Your task to perform on an android device: Empty the shopping cart on target.com. Search for panasonic triple a on target.com, select the first entry, add it to the cart, then select checkout. Image 0: 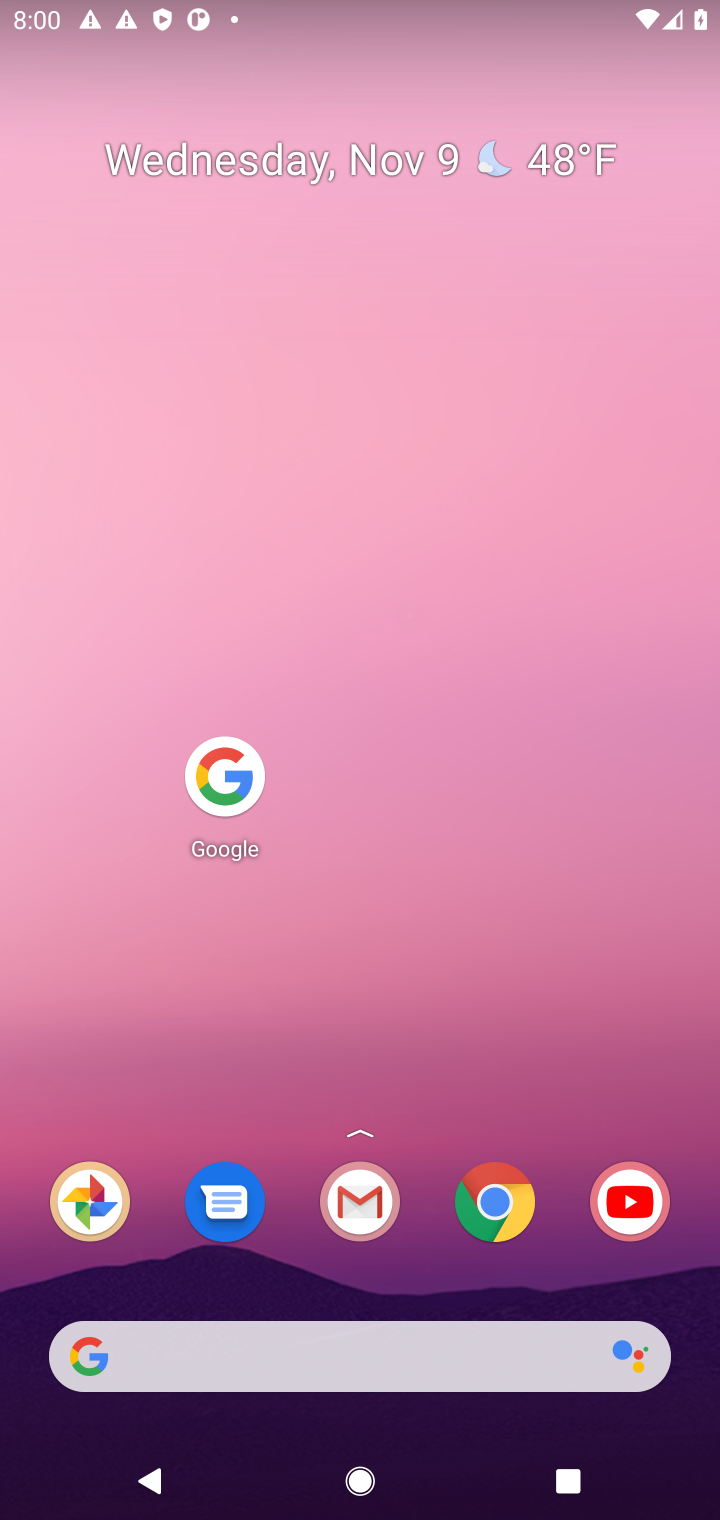
Step 0: click (207, 798)
Your task to perform on an android device: Empty the shopping cart on target.com. Search for panasonic triple a on target.com, select the first entry, add it to the cart, then select checkout. Image 1: 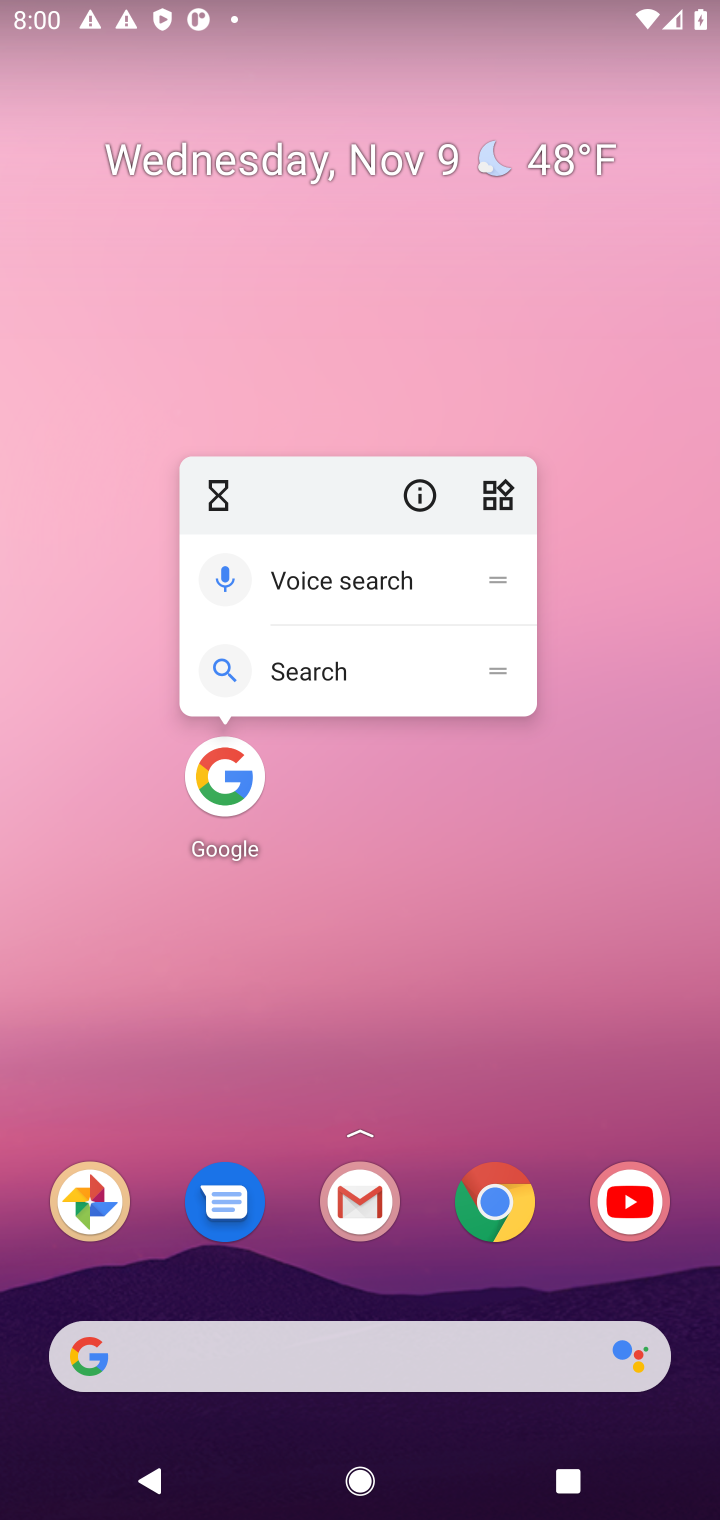
Step 1: click (221, 788)
Your task to perform on an android device: Empty the shopping cart on target.com. Search for panasonic triple a on target.com, select the first entry, add it to the cart, then select checkout. Image 2: 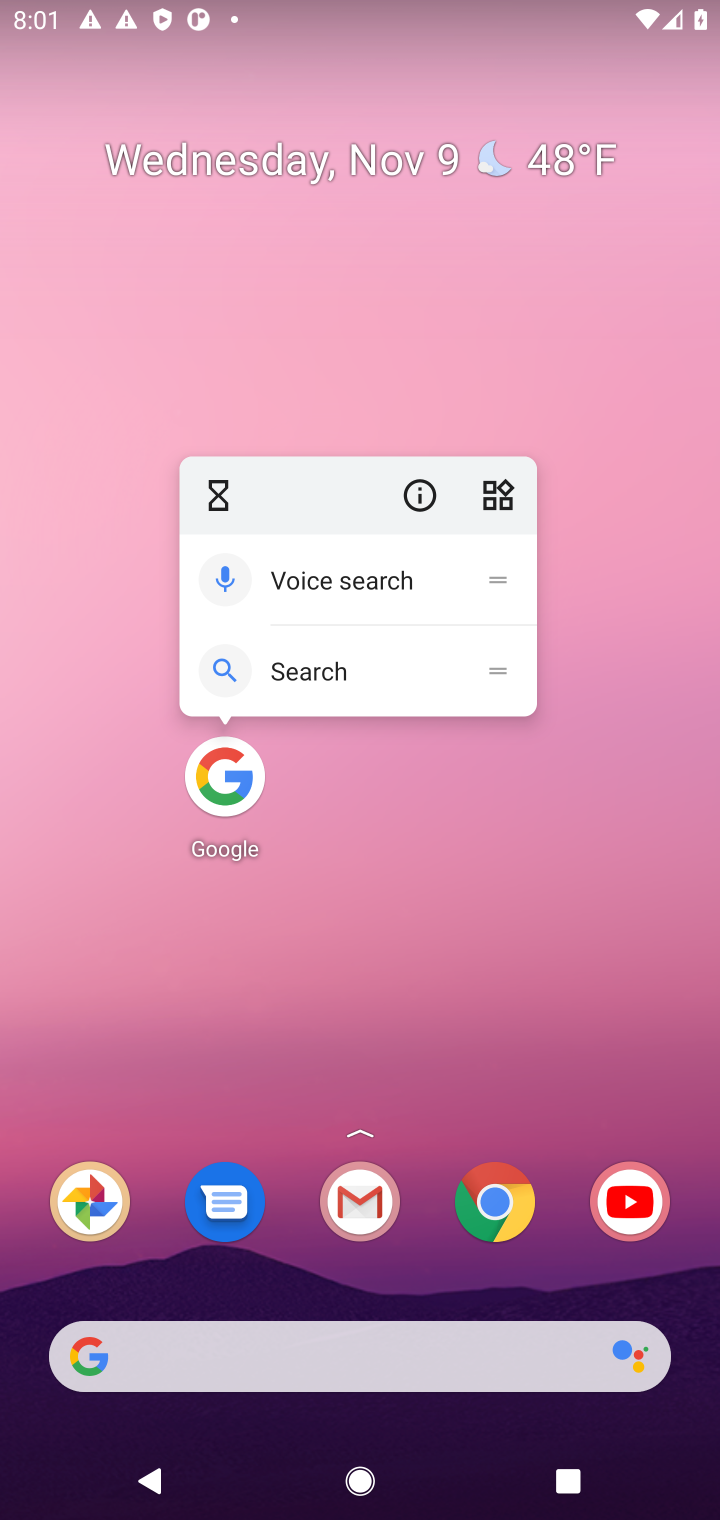
Step 2: click (220, 773)
Your task to perform on an android device: Empty the shopping cart on target.com. Search for panasonic triple a on target.com, select the first entry, add it to the cart, then select checkout. Image 3: 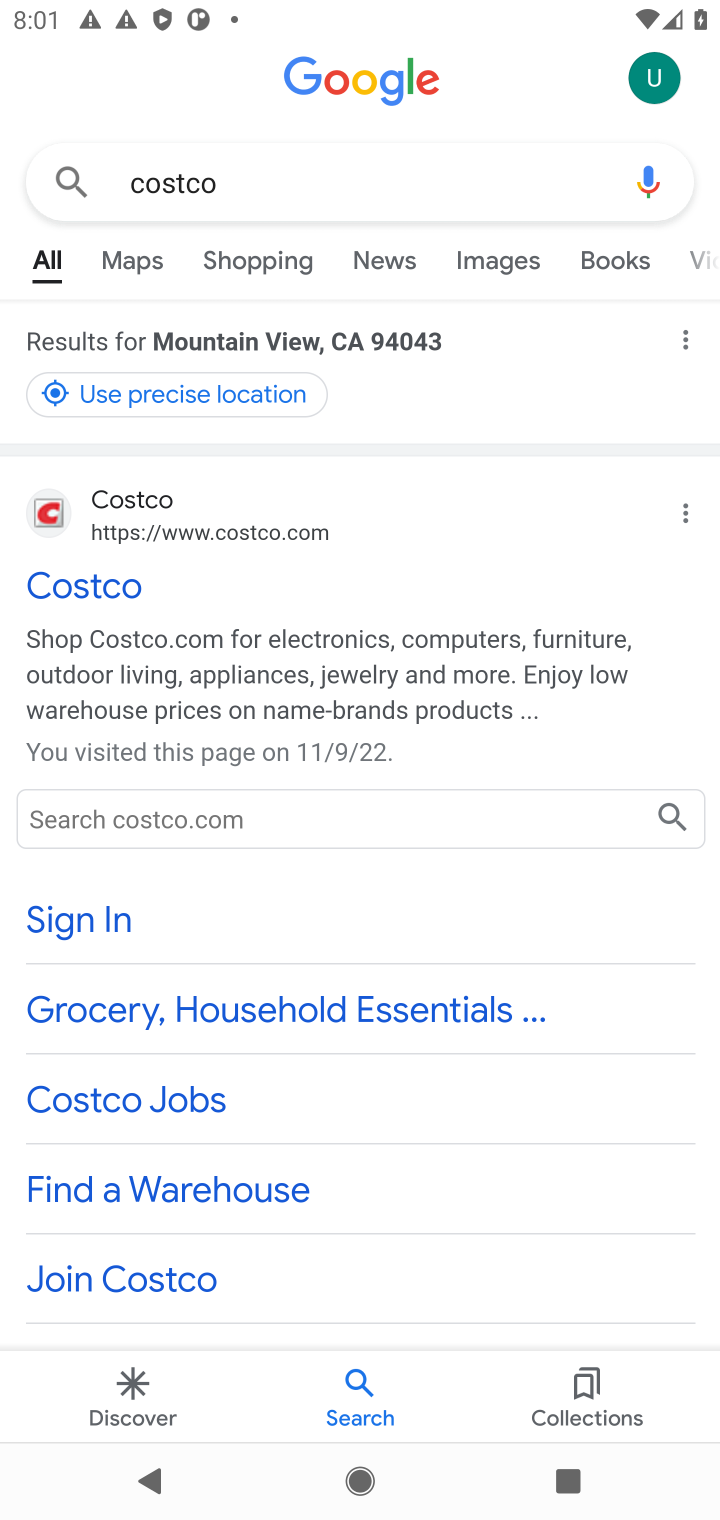
Step 3: click (343, 174)
Your task to perform on an android device: Empty the shopping cart on target.com. Search for panasonic triple a on target.com, select the first entry, add it to the cart, then select checkout. Image 4: 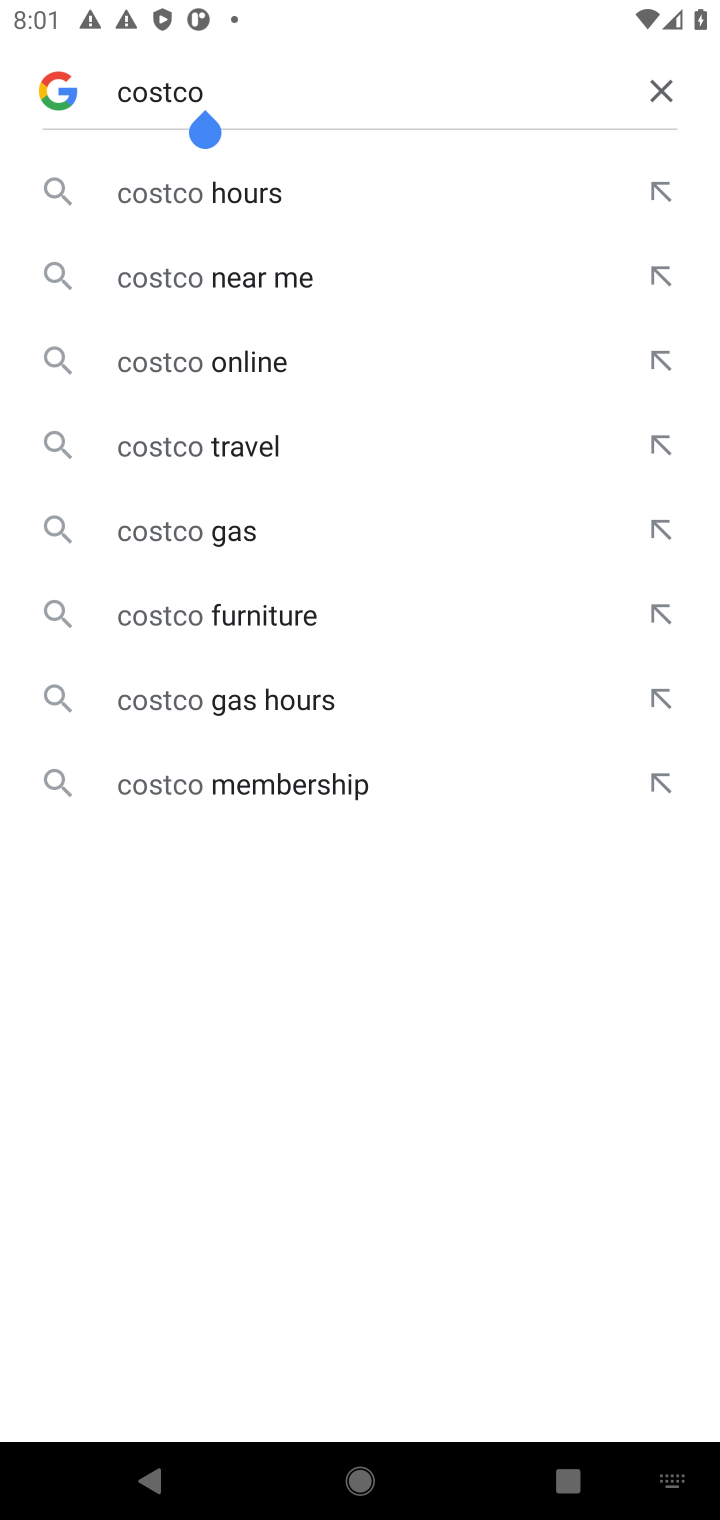
Step 4: click (657, 83)
Your task to perform on an android device: Empty the shopping cart on target.com. Search for panasonic triple a on target.com, select the first entry, add it to the cart, then select checkout. Image 5: 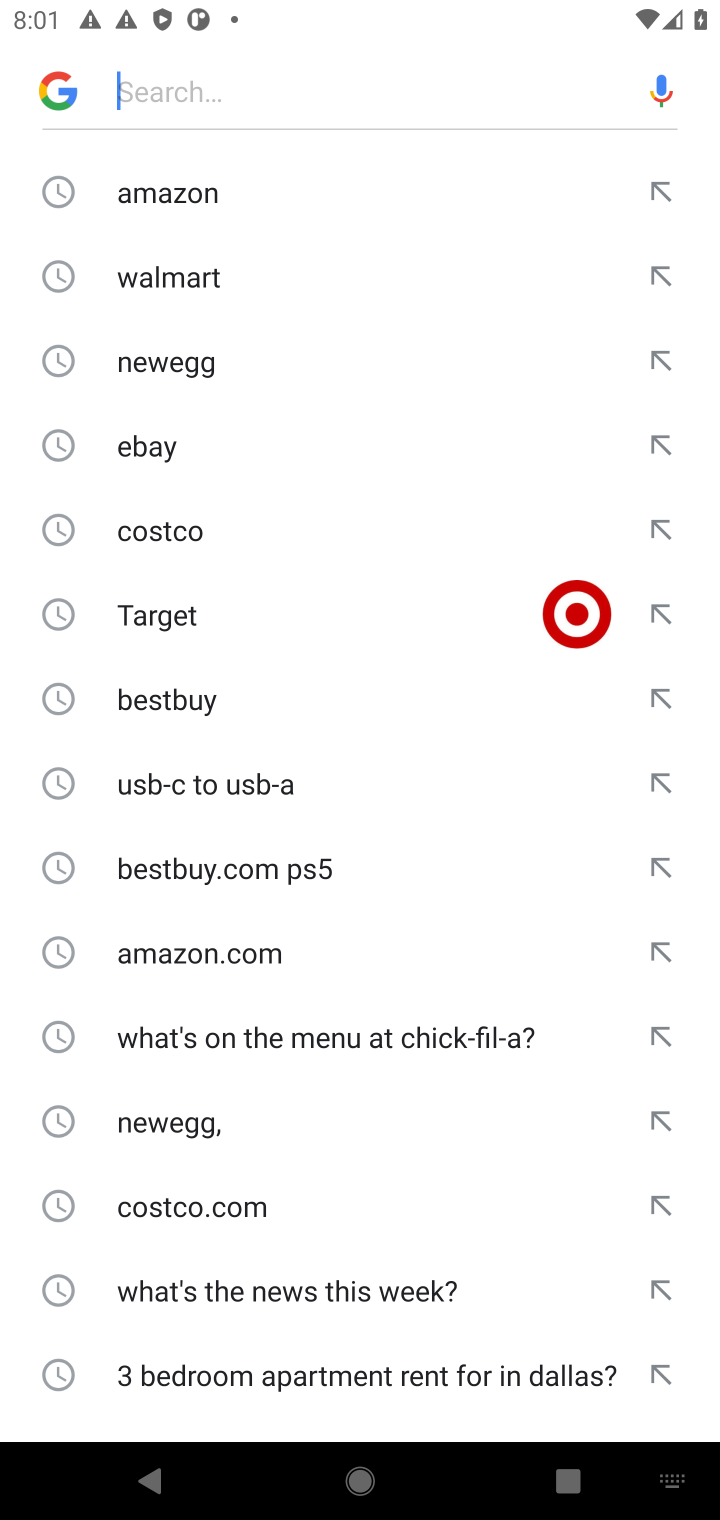
Step 5: click (141, 616)
Your task to perform on an android device: Empty the shopping cart on target.com. Search for panasonic triple a on target.com, select the first entry, add it to the cart, then select checkout. Image 6: 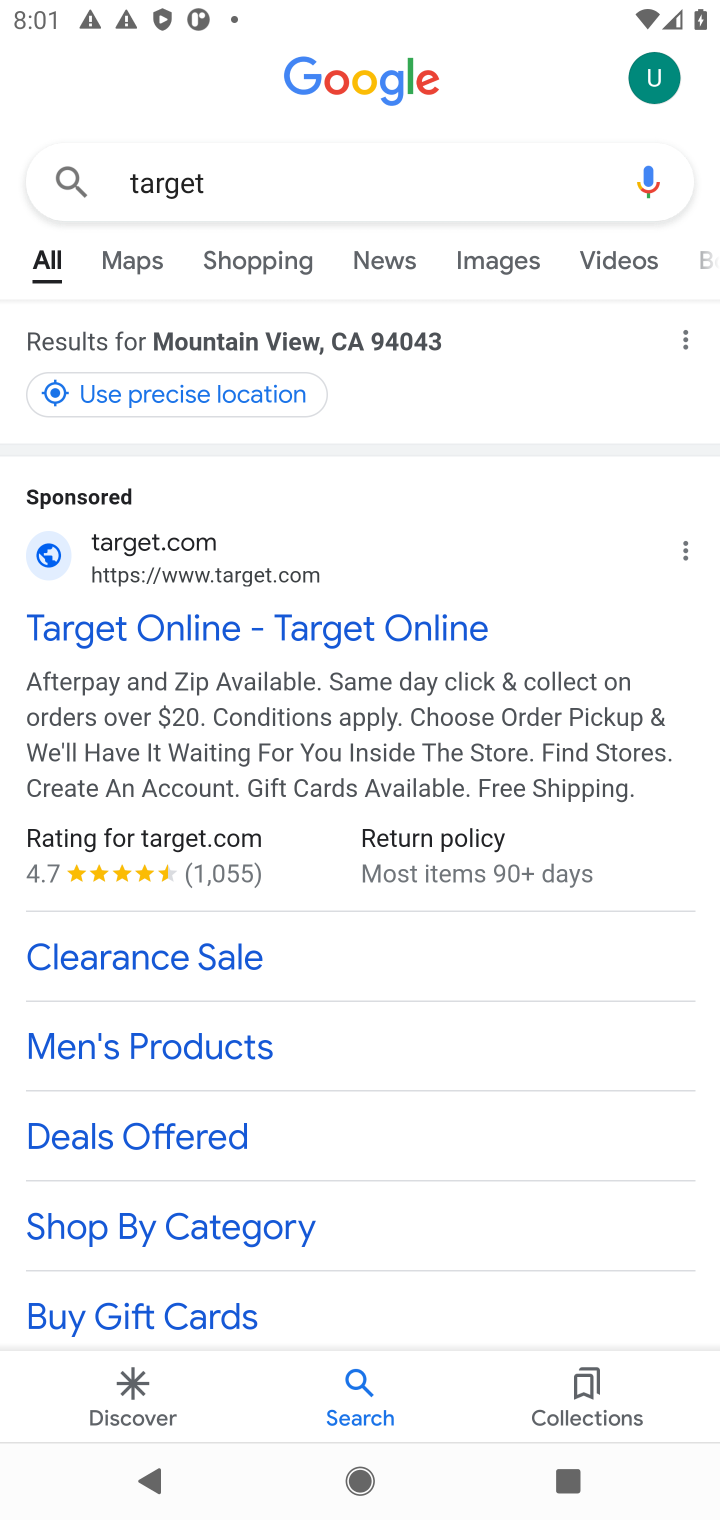
Step 6: click (313, 632)
Your task to perform on an android device: Empty the shopping cart on target.com. Search for panasonic triple a on target.com, select the first entry, add it to the cart, then select checkout. Image 7: 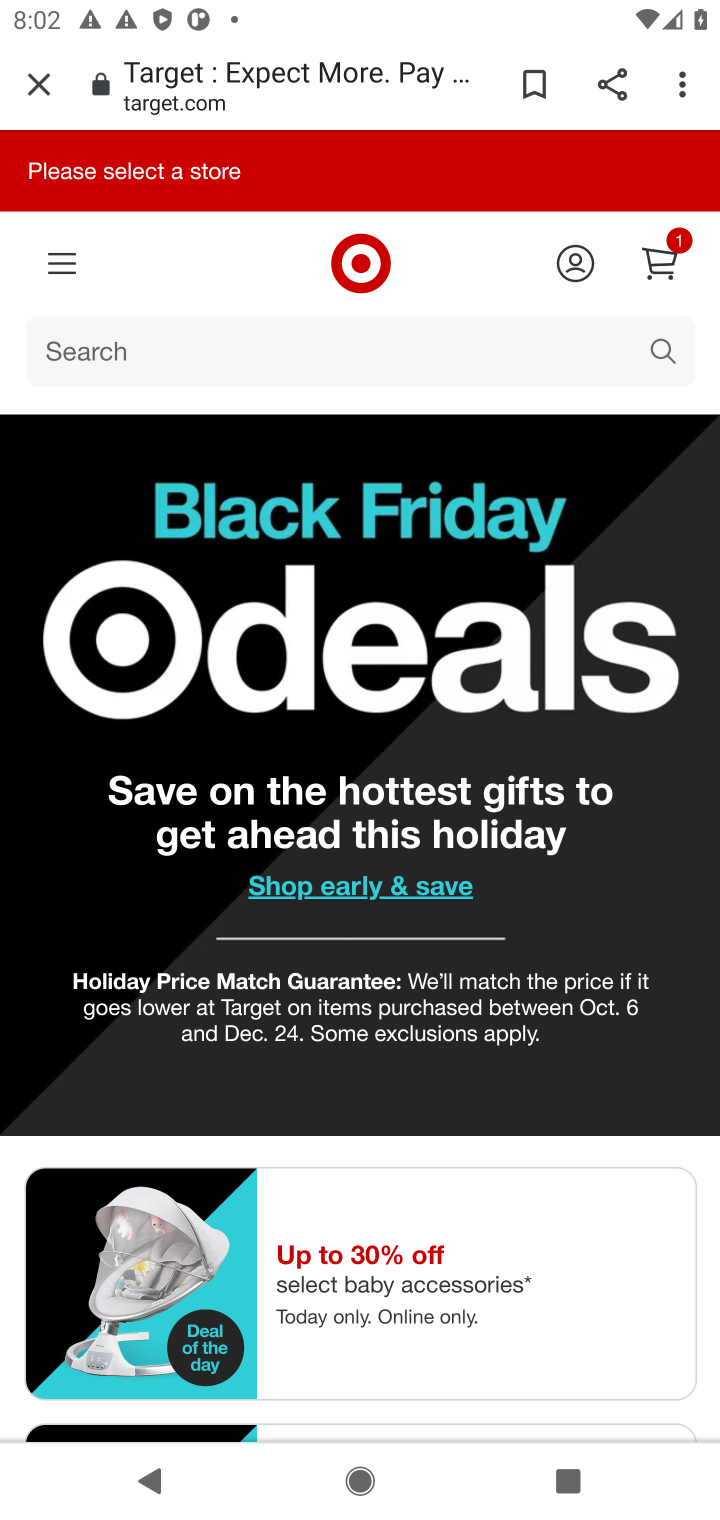
Step 7: click (113, 327)
Your task to perform on an android device: Empty the shopping cart on target.com. Search for panasonic triple a on target.com, select the first entry, add it to the cart, then select checkout. Image 8: 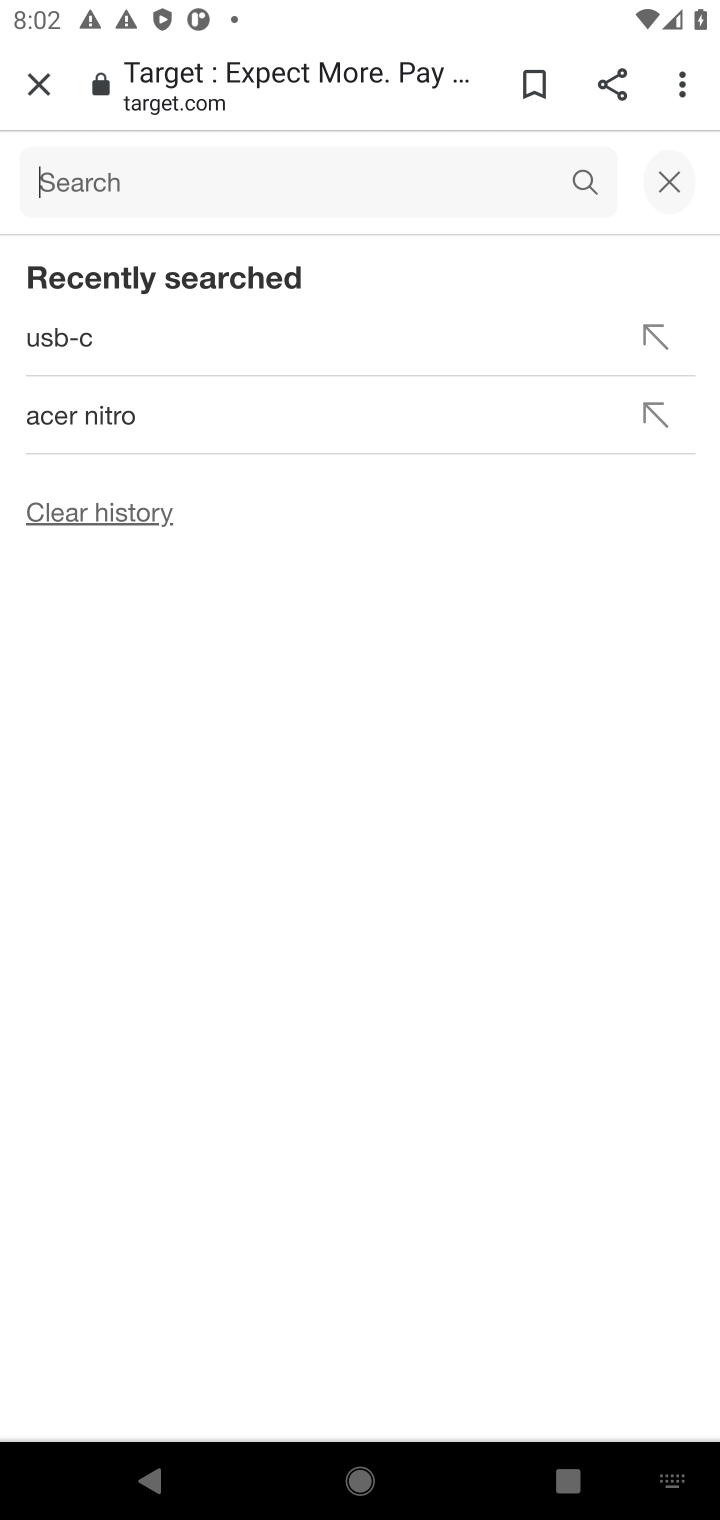
Step 8: type "panasonic triple a"
Your task to perform on an android device: Empty the shopping cart on target.com. Search for panasonic triple a on target.com, select the first entry, add it to the cart, then select checkout. Image 9: 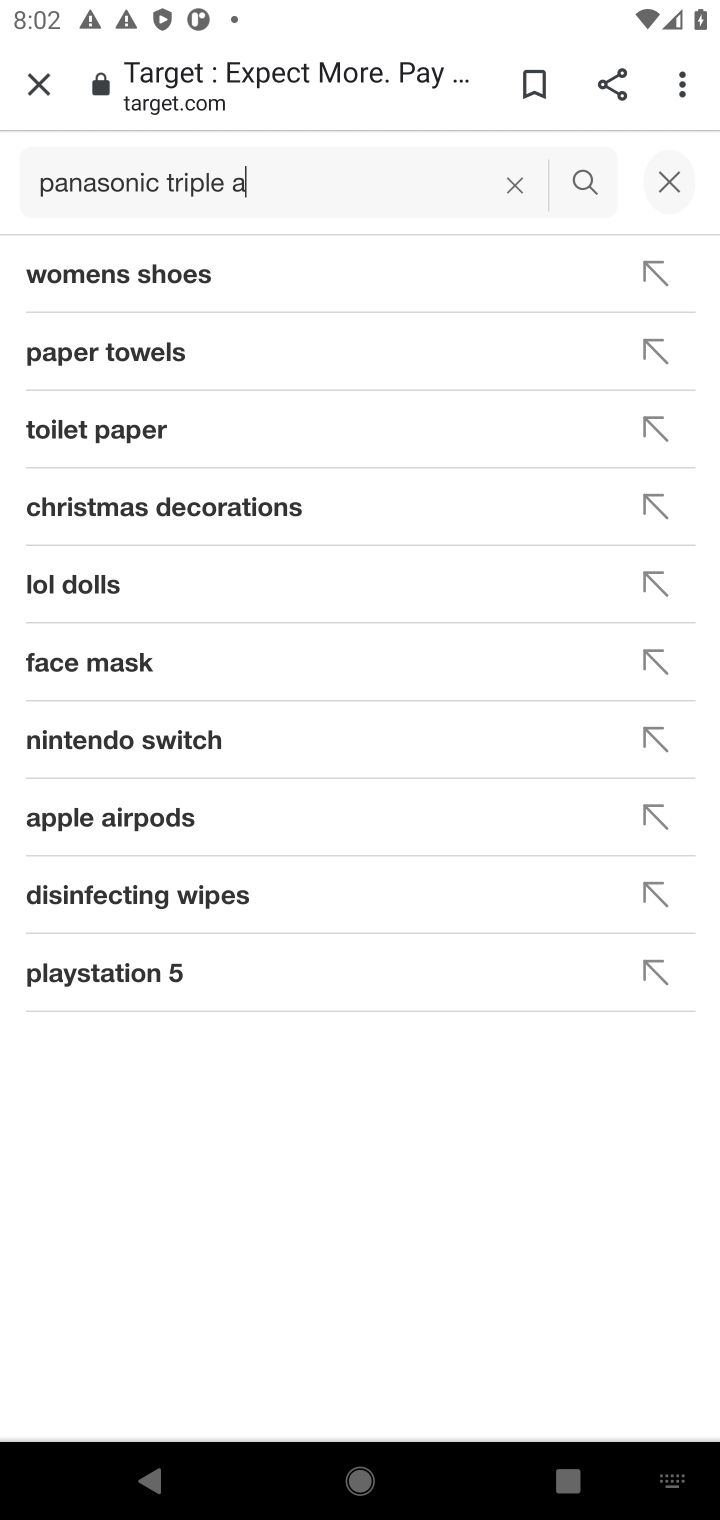
Step 9: press enter
Your task to perform on an android device: Empty the shopping cart on target.com. Search for panasonic triple a on target.com, select the first entry, add it to the cart, then select checkout. Image 10: 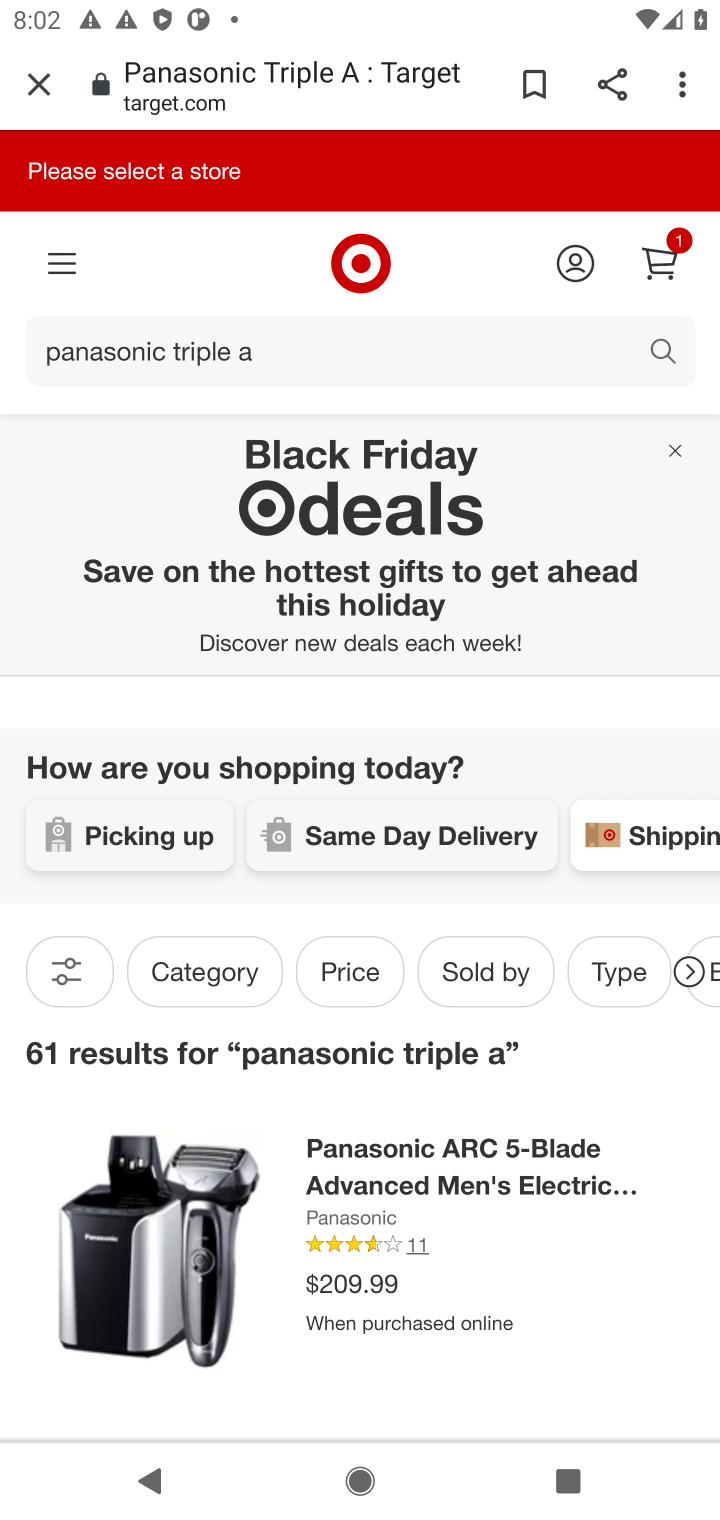
Step 10: task complete